Your task to perform on an android device: Go to CNN.com Image 0: 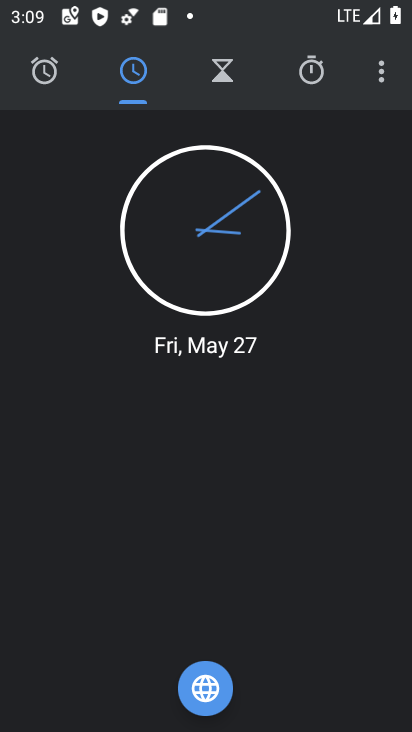
Step 0: press home button
Your task to perform on an android device: Go to CNN.com Image 1: 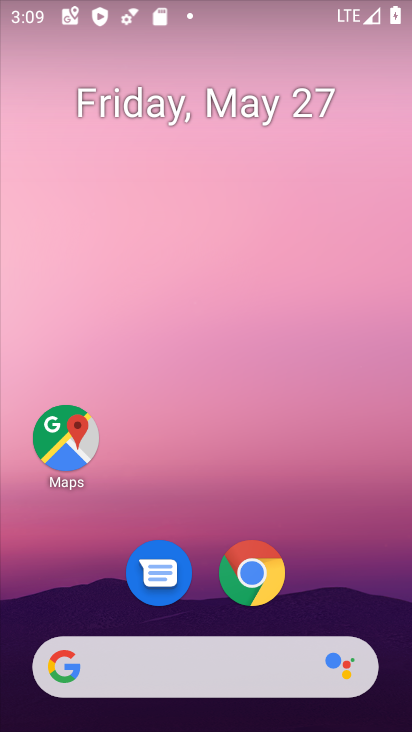
Step 1: click (231, 662)
Your task to perform on an android device: Go to CNN.com Image 2: 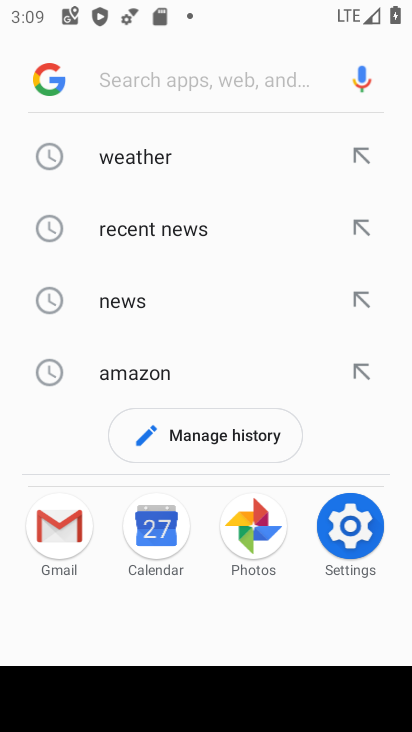
Step 2: type "cnn.com"
Your task to perform on an android device: Go to CNN.com Image 3: 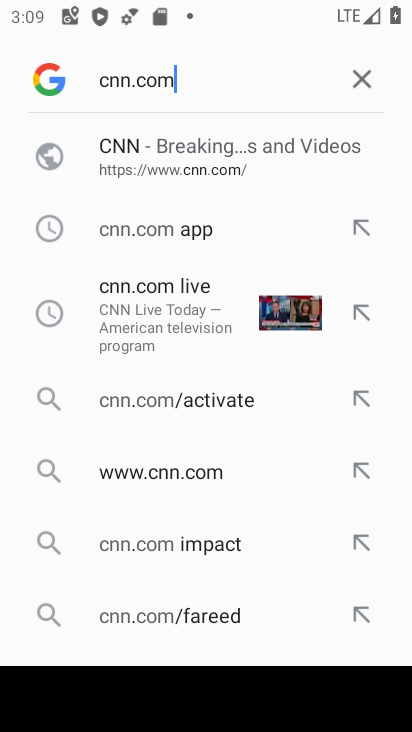
Step 3: click (120, 157)
Your task to perform on an android device: Go to CNN.com Image 4: 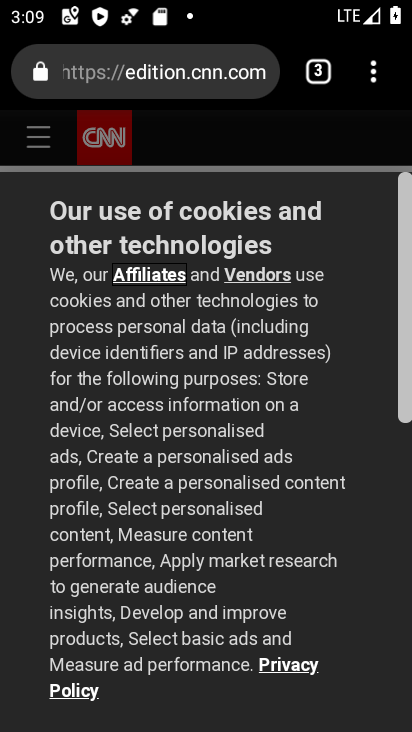
Step 4: task complete